Your task to perform on an android device: turn on improve location accuracy Image 0: 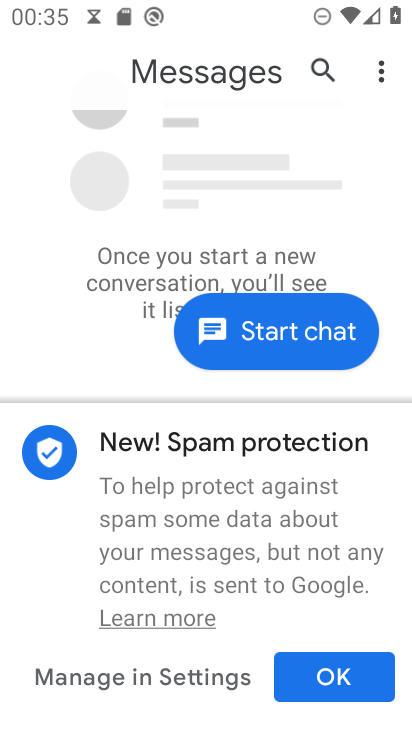
Step 0: press home button
Your task to perform on an android device: turn on improve location accuracy Image 1: 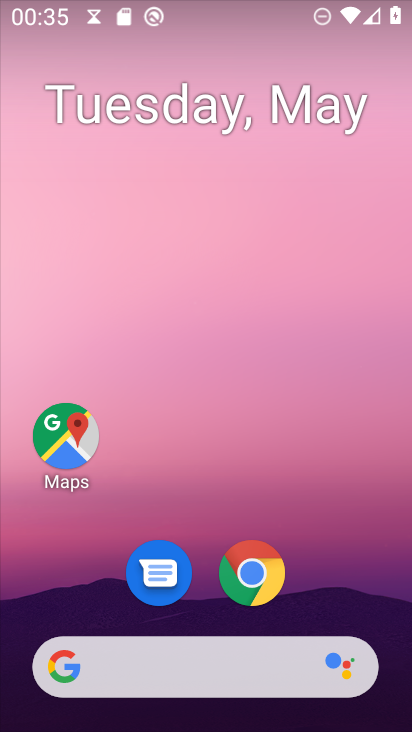
Step 1: drag from (323, 517) to (245, 43)
Your task to perform on an android device: turn on improve location accuracy Image 2: 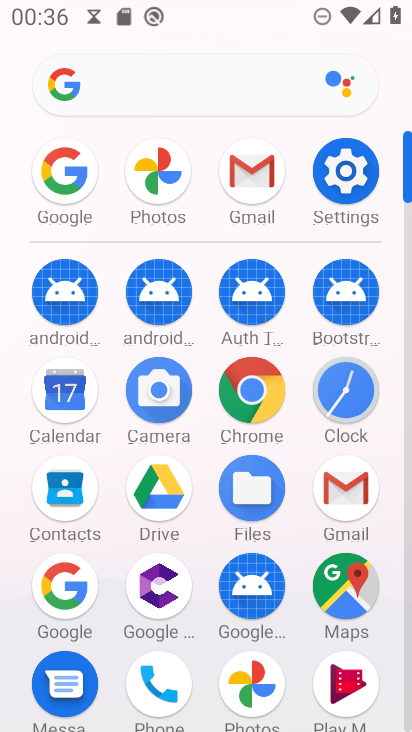
Step 2: click (339, 175)
Your task to perform on an android device: turn on improve location accuracy Image 3: 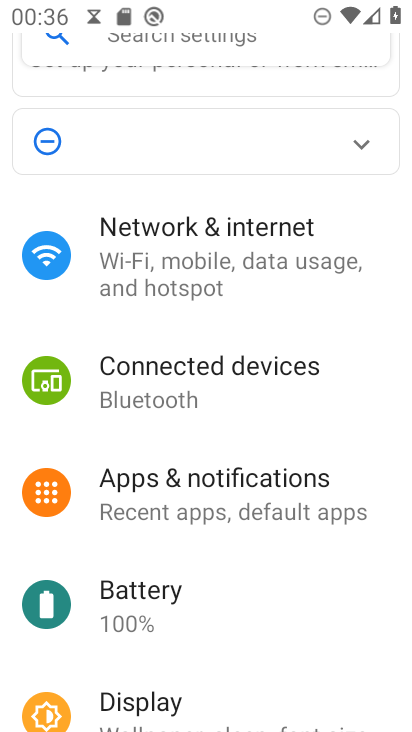
Step 3: drag from (230, 637) to (190, 102)
Your task to perform on an android device: turn on improve location accuracy Image 4: 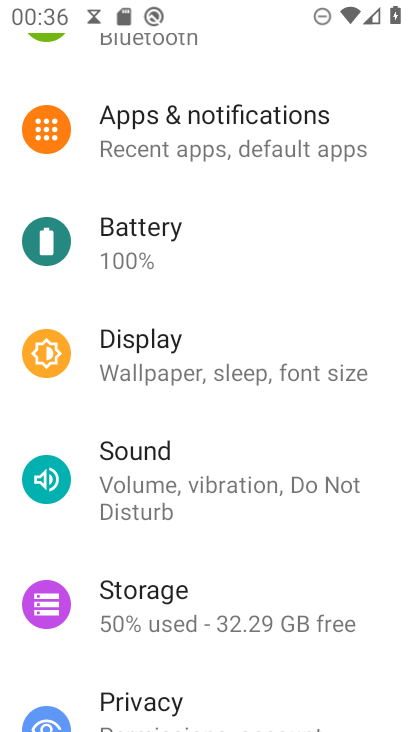
Step 4: drag from (208, 614) to (204, 259)
Your task to perform on an android device: turn on improve location accuracy Image 5: 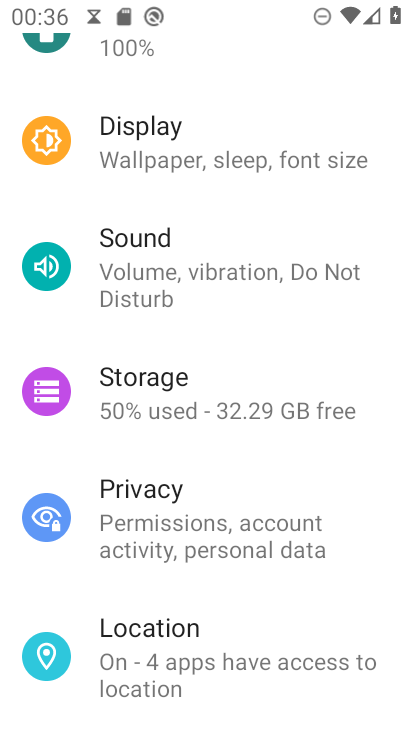
Step 5: drag from (257, 585) to (257, 160)
Your task to perform on an android device: turn on improve location accuracy Image 6: 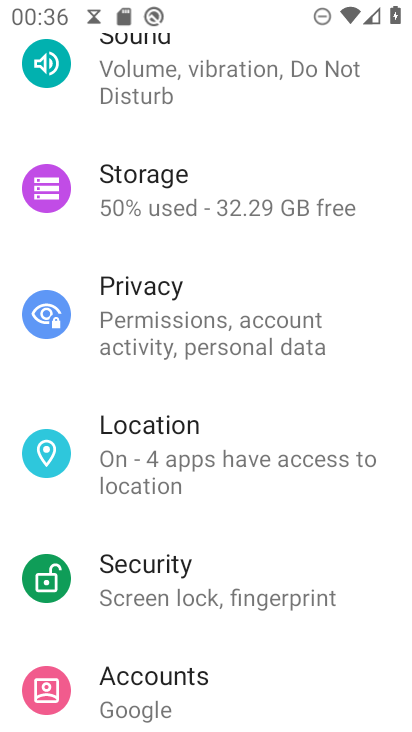
Step 6: click (195, 398)
Your task to perform on an android device: turn on improve location accuracy Image 7: 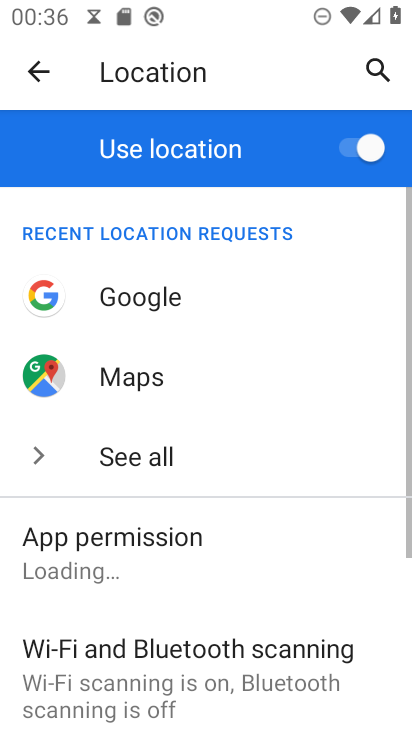
Step 7: drag from (247, 569) to (200, 55)
Your task to perform on an android device: turn on improve location accuracy Image 8: 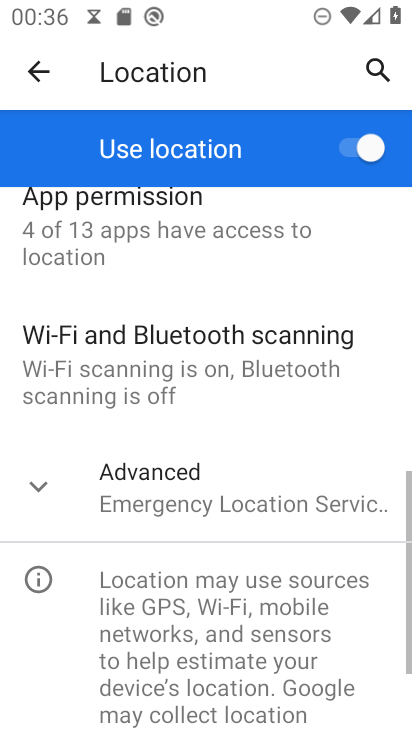
Step 8: click (213, 477)
Your task to perform on an android device: turn on improve location accuracy Image 9: 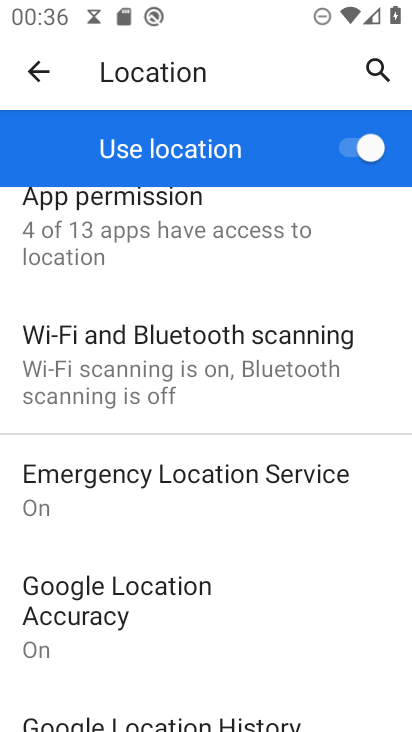
Step 9: drag from (257, 612) to (206, 266)
Your task to perform on an android device: turn on improve location accuracy Image 10: 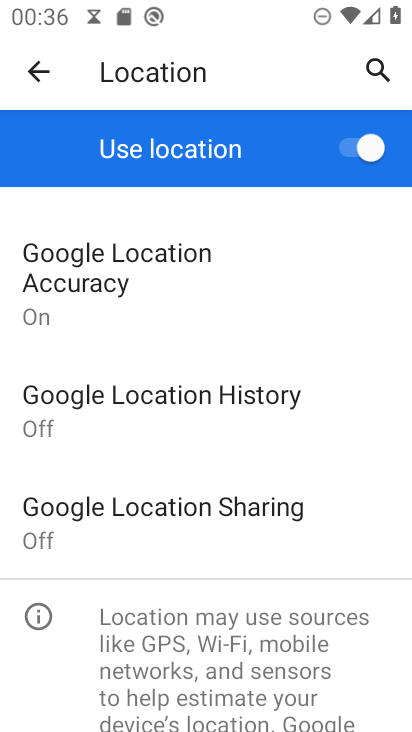
Step 10: click (188, 274)
Your task to perform on an android device: turn on improve location accuracy Image 11: 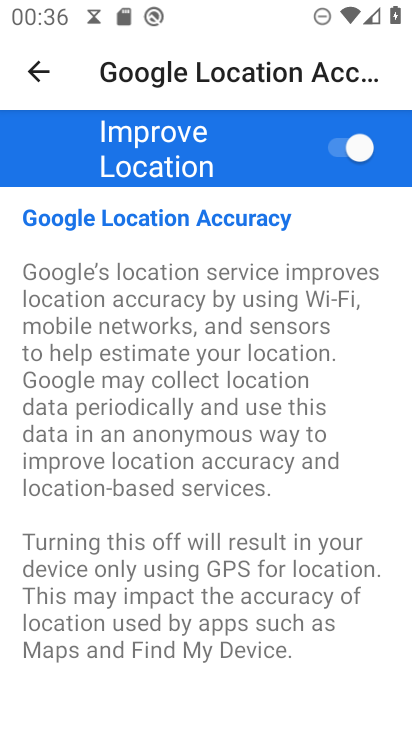
Step 11: task complete